Your task to perform on an android device: open app "eBay: The shopping marketplace" (install if not already installed) Image 0: 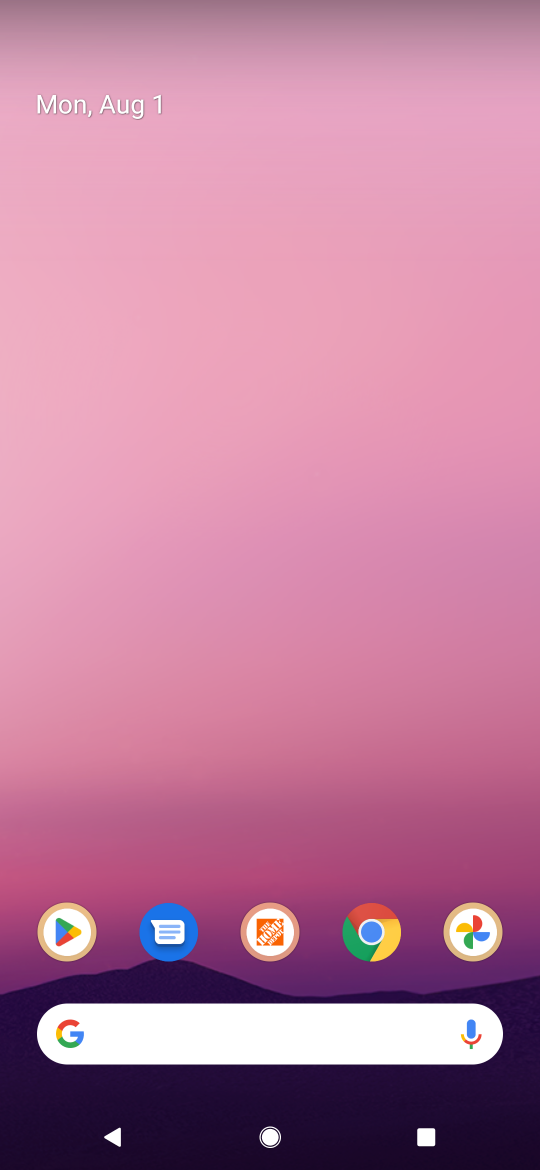
Step 0: click (79, 930)
Your task to perform on an android device: open app "eBay: The shopping marketplace" (install if not already installed) Image 1: 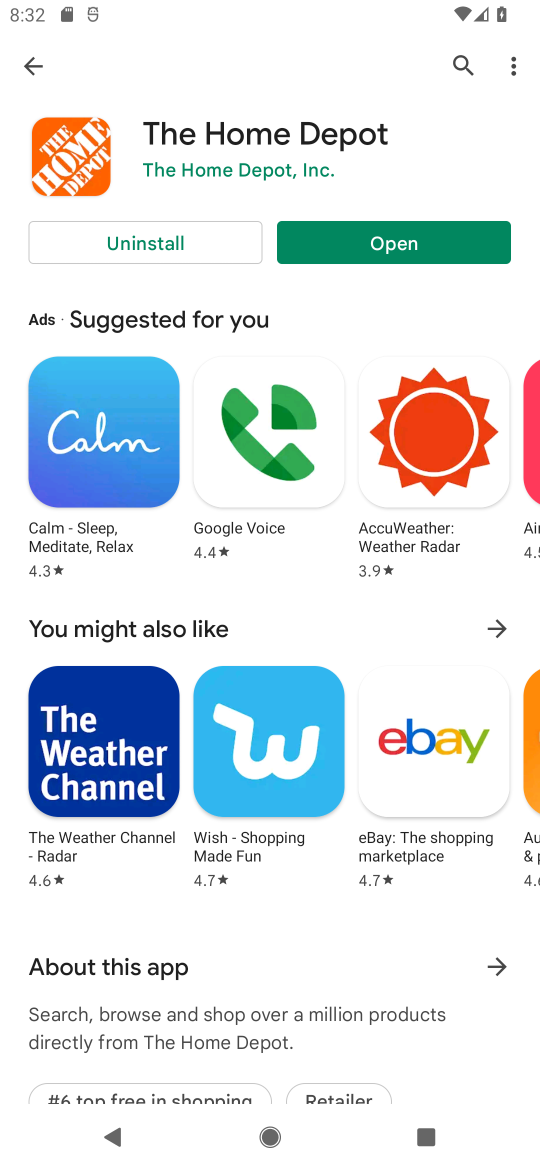
Step 1: click (469, 72)
Your task to perform on an android device: open app "eBay: The shopping marketplace" (install if not already installed) Image 2: 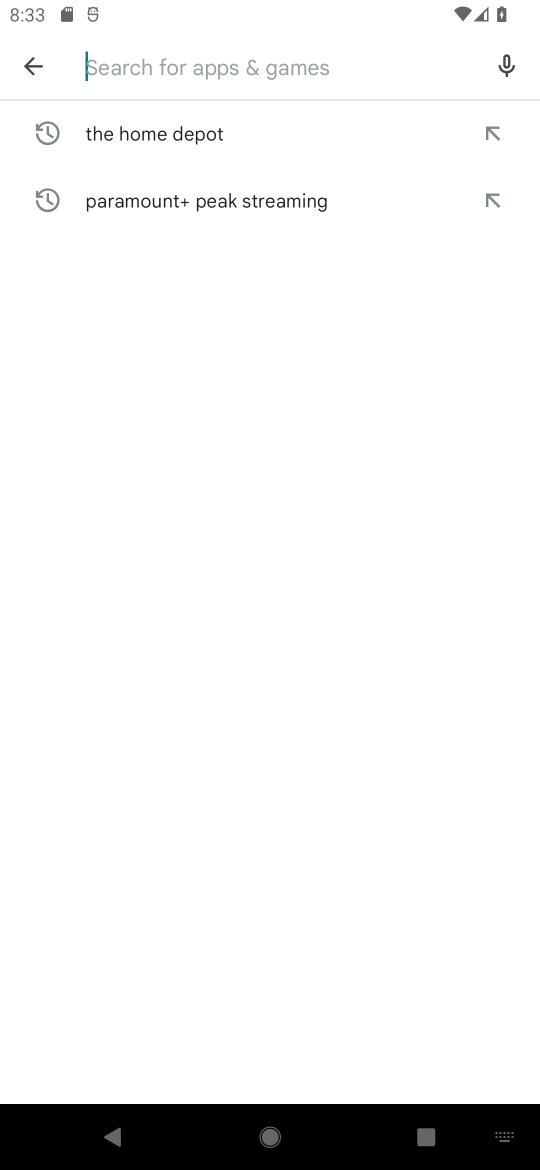
Step 2: type "ebay: the shopping marketplace"
Your task to perform on an android device: open app "eBay: The shopping marketplace" (install if not already installed) Image 3: 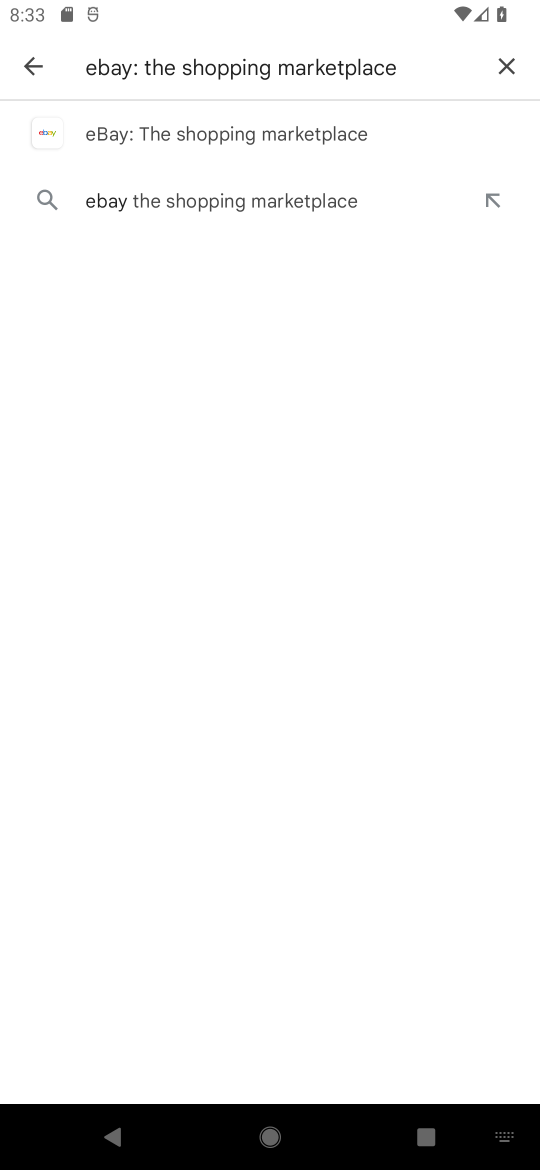
Step 3: click (321, 128)
Your task to perform on an android device: open app "eBay: The shopping marketplace" (install if not already installed) Image 4: 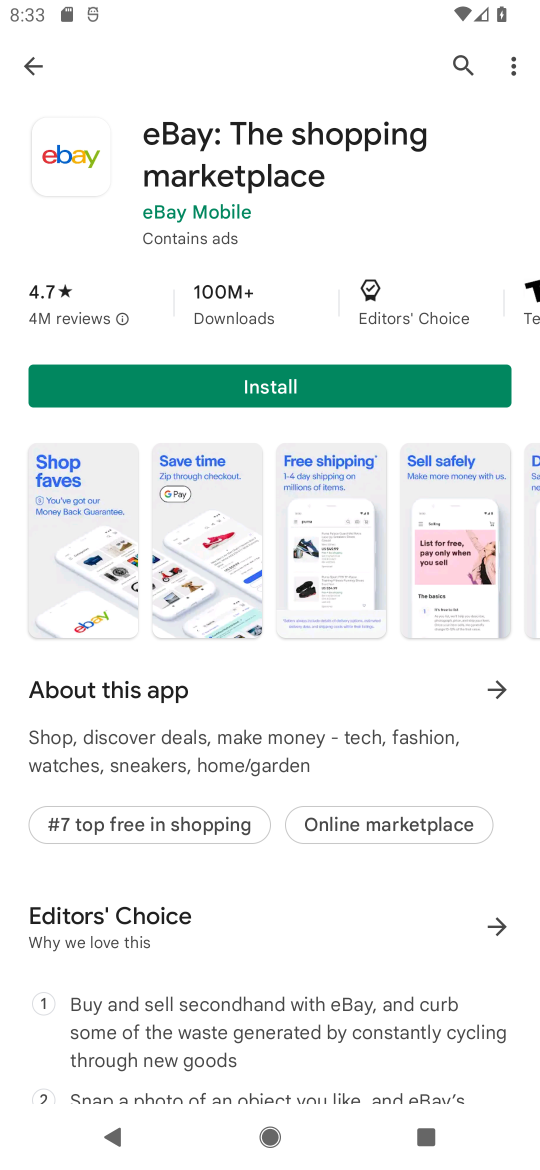
Step 4: click (285, 393)
Your task to perform on an android device: open app "eBay: The shopping marketplace" (install if not already installed) Image 5: 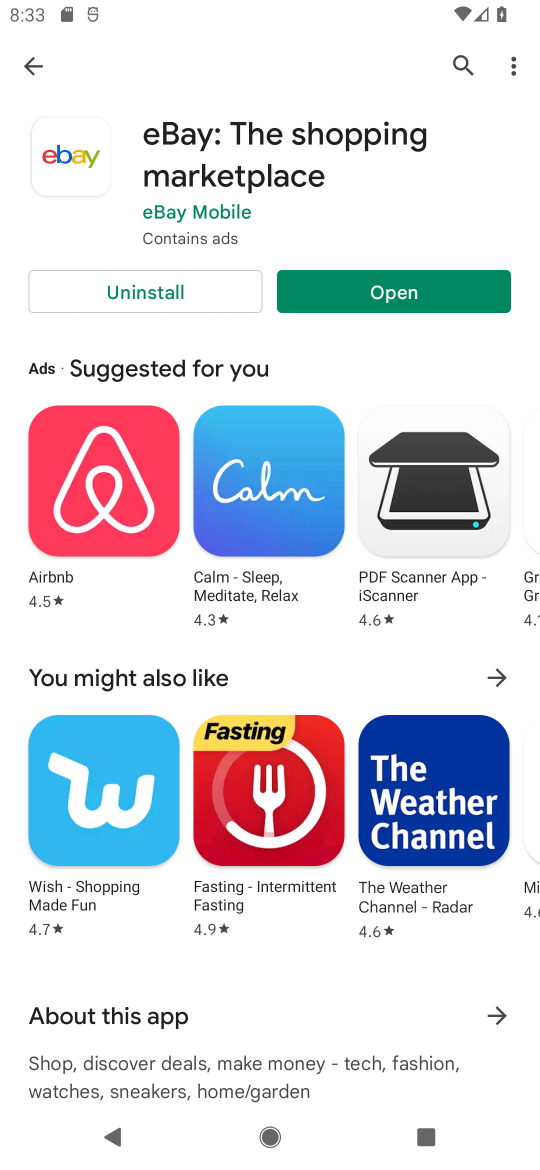
Step 5: click (342, 278)
Your task to perform on an android device: open app "eBay: The shopping marketplace" (install if not already installed) Image 6: 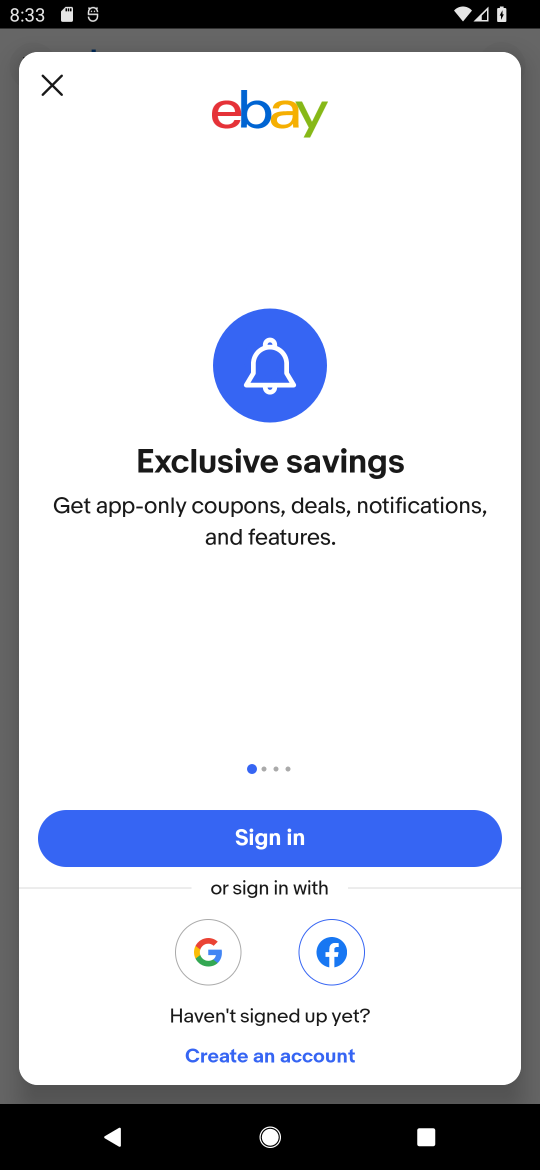
Step 6: task complete